Your task to perform on an android device: Go to Google Image 0: 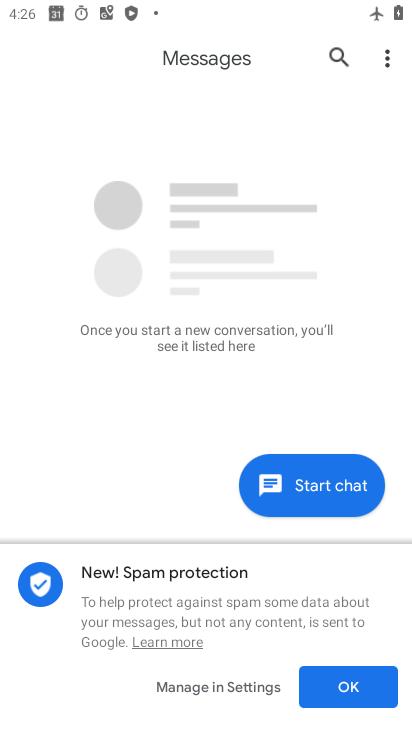
Step 0: press home button
Your task to perform on an android device: Go to Google Image 1: 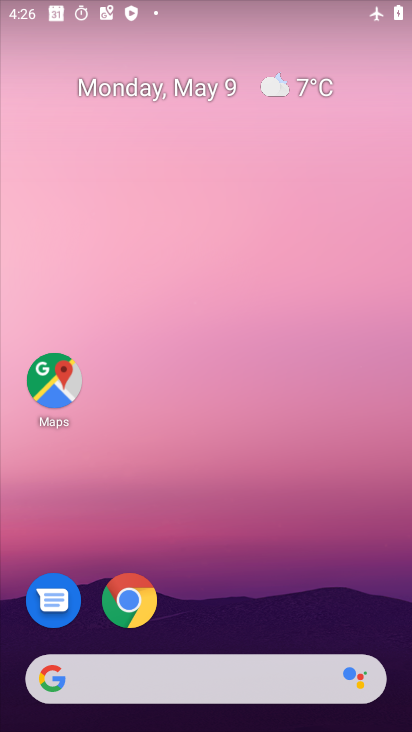
Step 1: drag from (306, 576) to (342, 149)
Your task to perform on an android device: Go to Google Image 2: 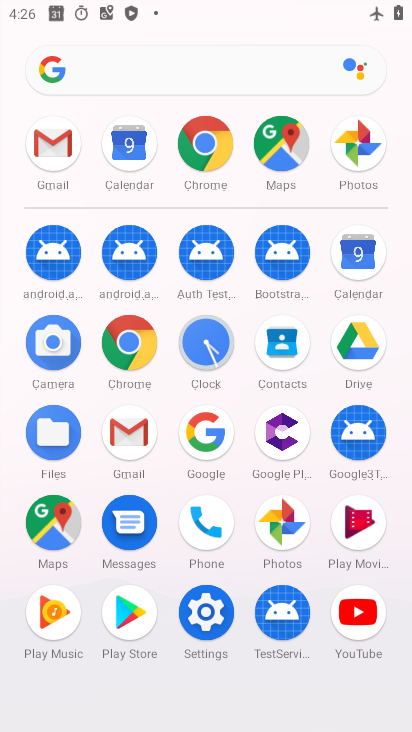
Step 2: click (205, 439)
Your task to perform on an android device: Go to Google Image 3: 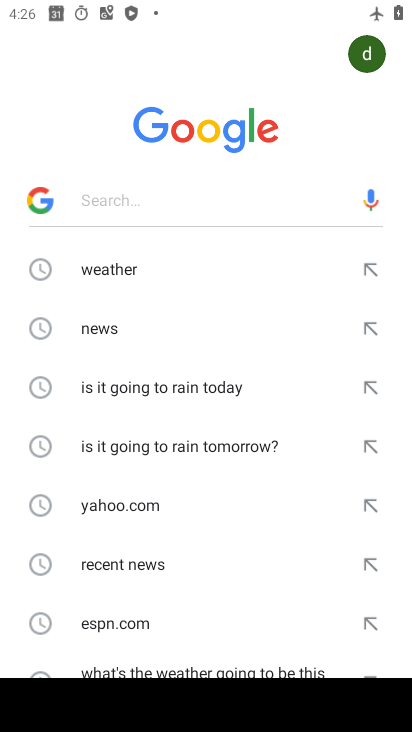
Step 3: task complete